Your task to perform on an android device: What's the weather going to be tomorrow? Image 0: 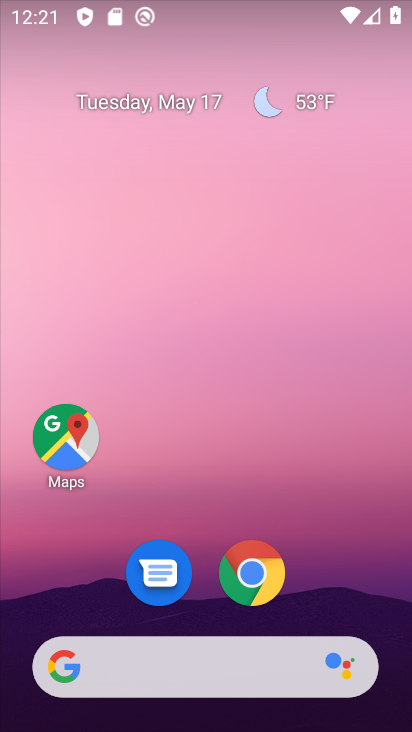
Step 0: click (311, 97)
Your task to perform on an android device: What's the weather going to be tomorrow? Image 1: 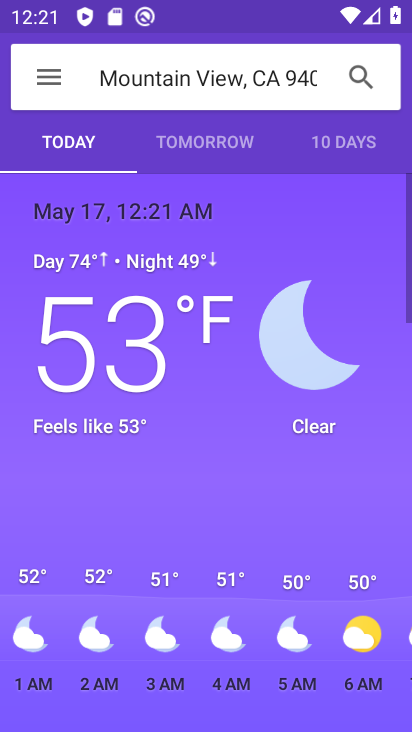
Step 1: click (207, 150)
Your task to perform on an android device: What's the weather going to be tomorrow? Image 2: 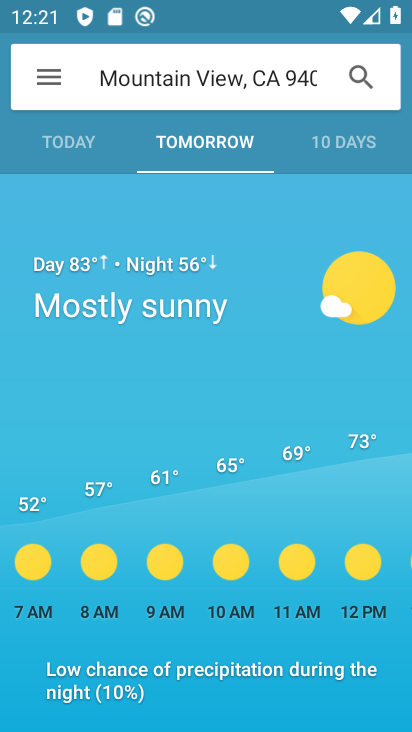
Step 2: task complete